Your task to perform on an android device: Open Google Image 0: 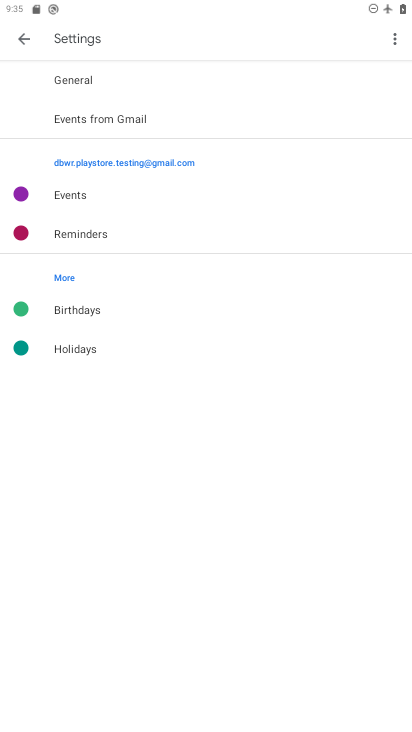
Step 0: press home button
Your task to perform on an android device: Open Google Image 1: 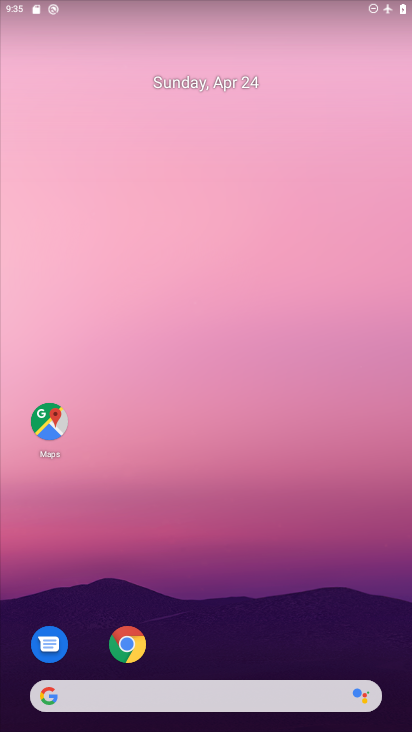
Step 1: drag from (215, 670) to (148, 69)
Your task to perform on an android device: Open Google Image 2: 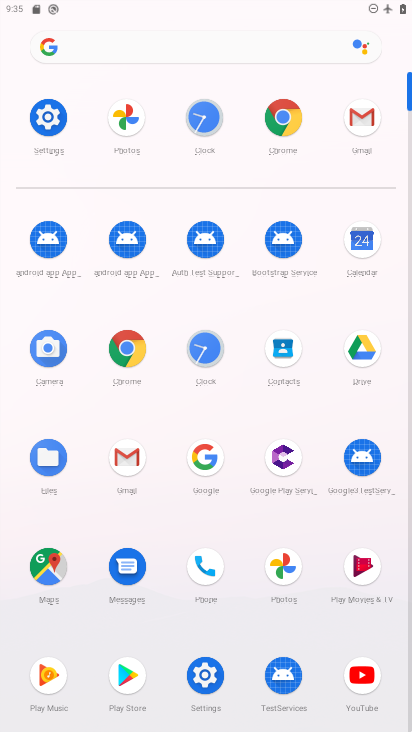
Step 2: click (197, 463)
Your task to perform on an android device: Open Google Image 3: 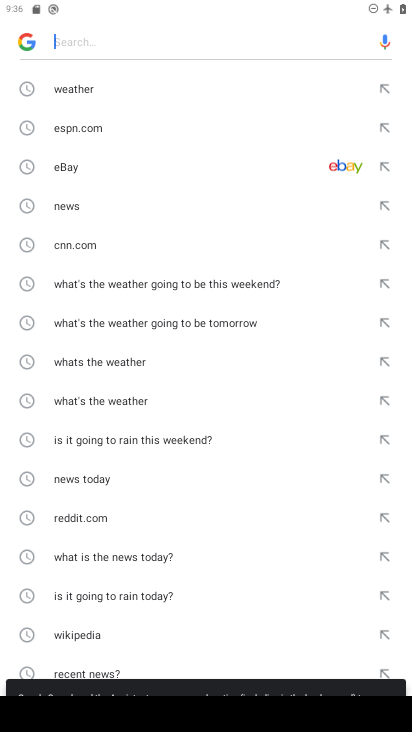
Step 3: task complete